Your task to perform on an android device: turn off javascript in the chrome app Image 0: 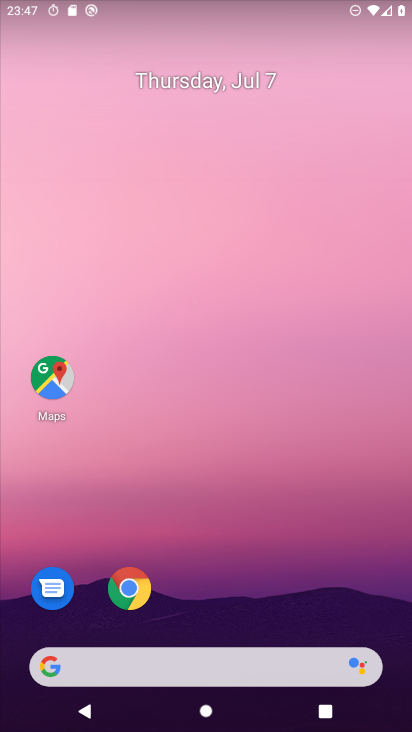
Step 0: click (130, 588)
Your task to perform on an android device: turn off javascript in the chrome app Image 1: 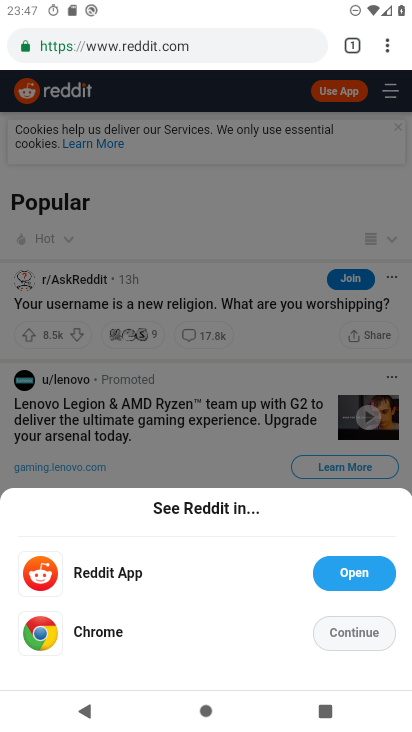
Step 1: drag from (388, 36) to (239, 544)
Your task to perform on an android device: turn off javascript in the chrome app Image 2: 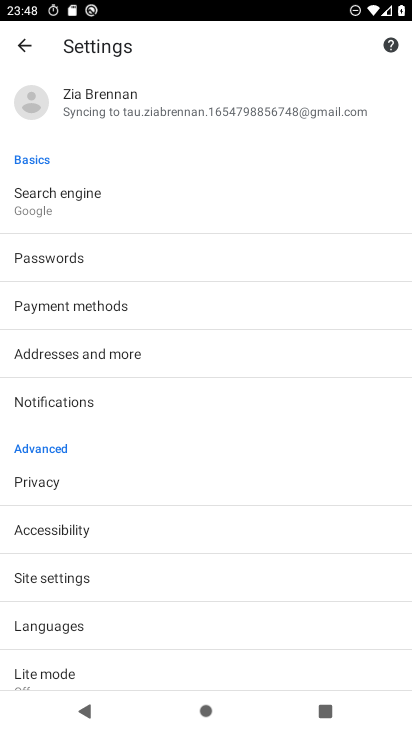
Step 2: click (69, 577)
Your task to perform on an android device: turn off javascript in the chrome app Image 3: 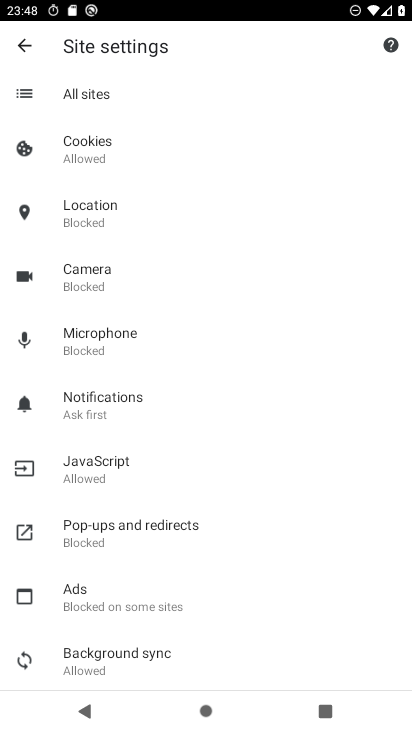
Step 3: click (93, 457)
Your task to perform on an android device: turn off javascript in the chrome app Image 4: 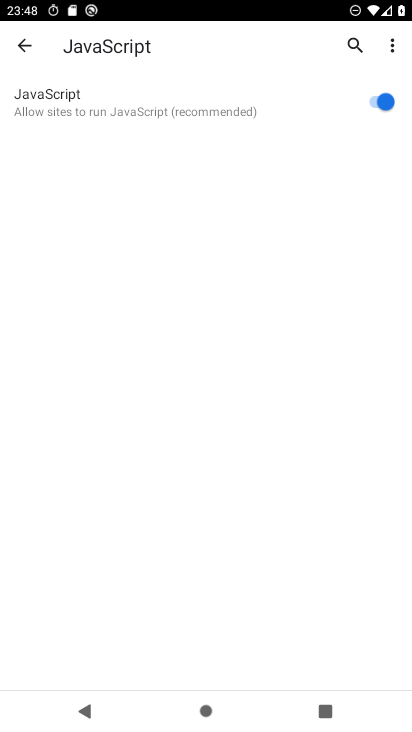
Step 4: click (385, 97)
Your task to perform on an android device: turn off javascript in the chrome app Image 5: 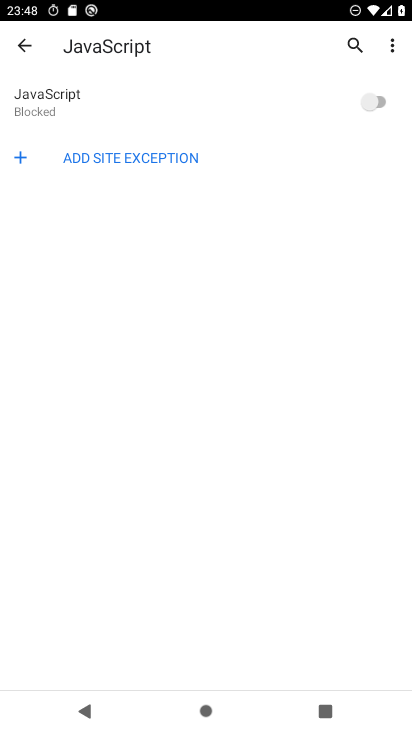
Step 5: task complete